Your task to perform on an android device: Open location settings Image 0: 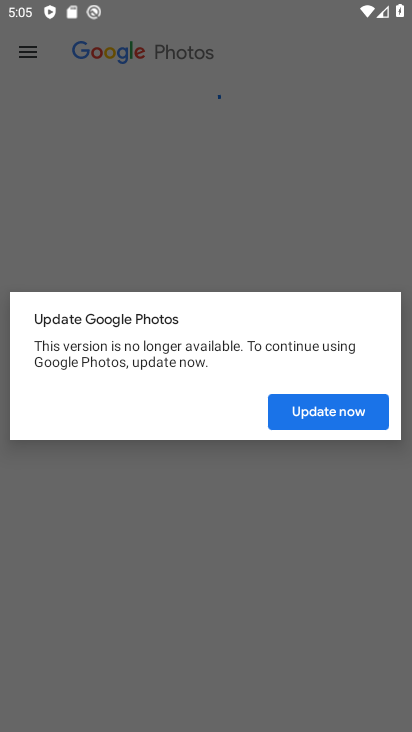
Step 0: press home button
Your task to perform on an android device: Open location settings Image 1: 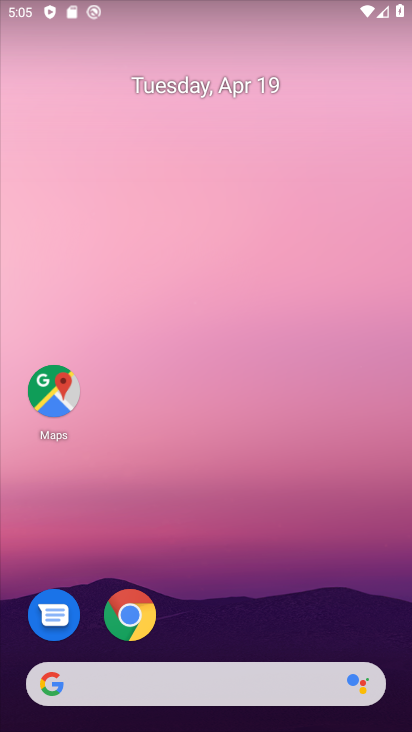
Step 1: drag from (196, 729) to (188, 114)
Your task to perform on an android device: Open location settings Image 2: 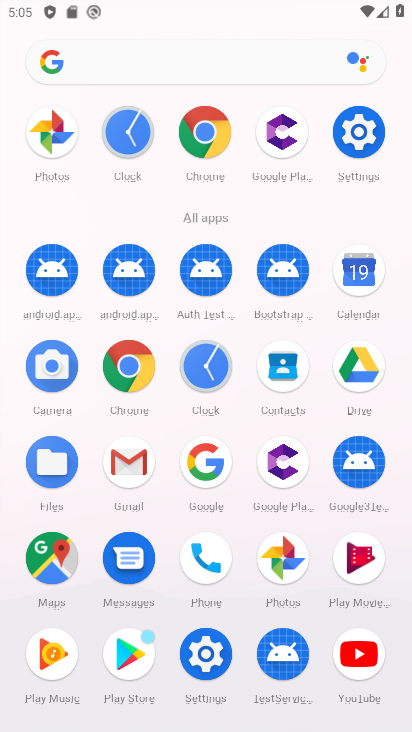
Step 2: click (350, 138)
Your task to perform on an android device: Open location settings Image 3: 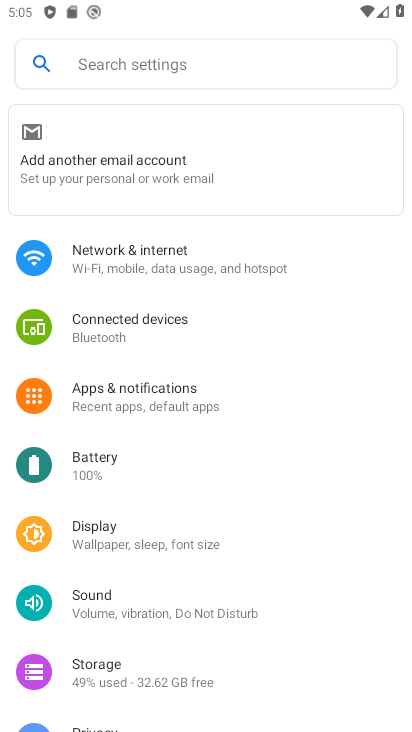
Step 3: drag from (189, 688) to (201, 365)
Your task to perform on an android device: Open location settings Image 4: 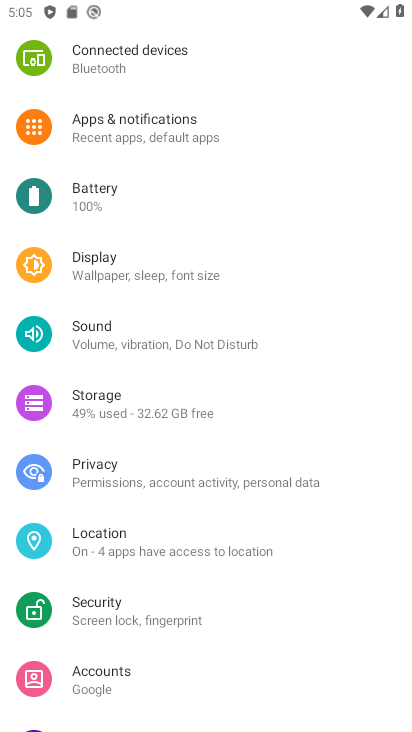
Step 4: click (113, 538)
Your task to perform on an android device: Open location settings Image 5: 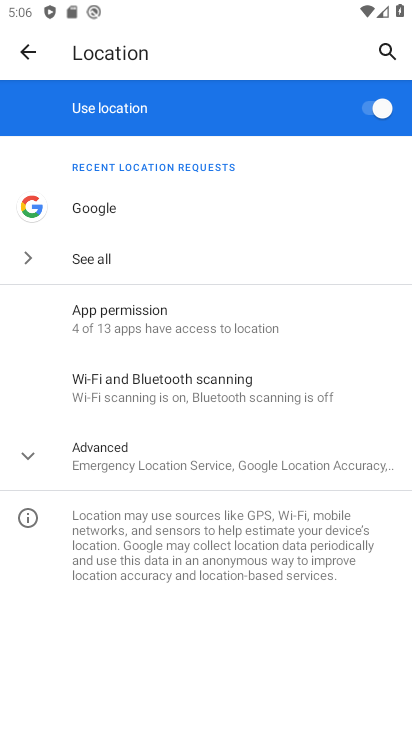
Step 5: task complete